Your task to perform on an android device: What's the weather today? Image 0: 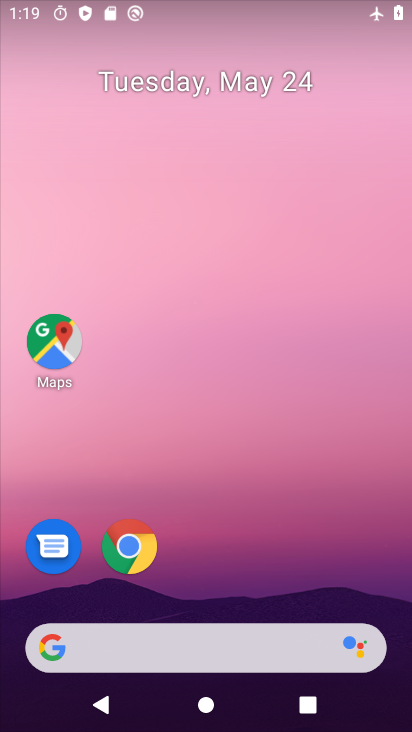
Step 0: drag from (184, 507) to (259, 13)
Your task to perform on an android device: What's the weather today? Image 1: 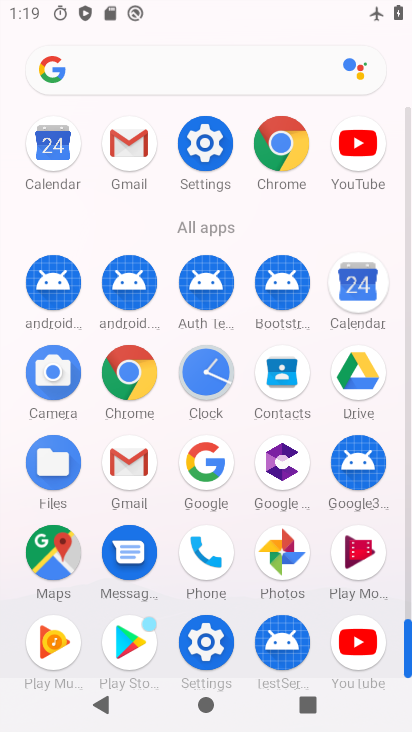
Step 1: click (155, 67)
Your task to perform on an android device: What's the weather today? Image 2: 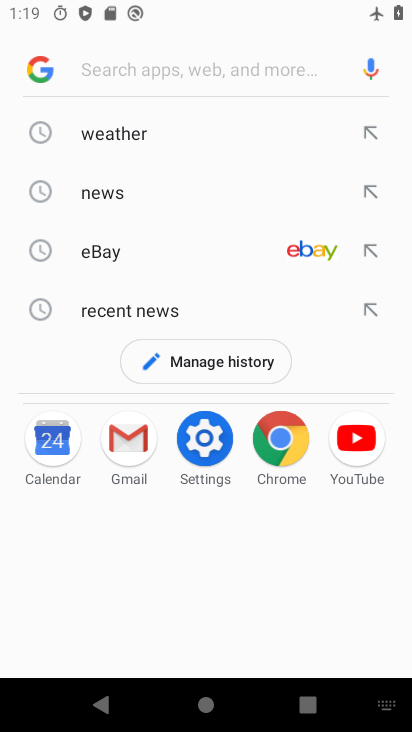
Step 2: type "weather today"
Your task to perform on an android device: What's the weather today? Image 3: 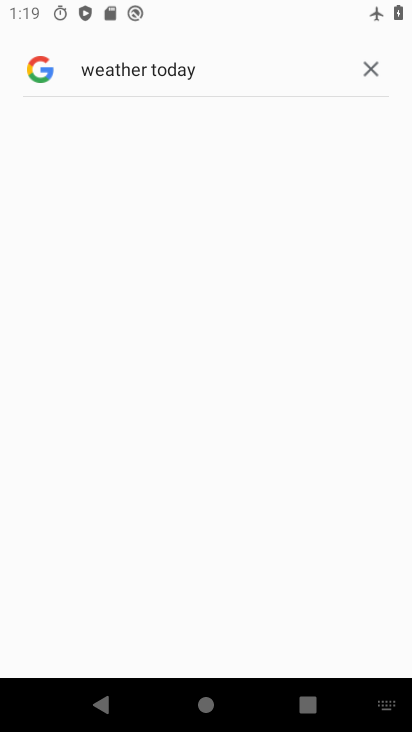
Step 3: click (260, 228)
Your task to perform on an android device: What's the weather today? Image 4: 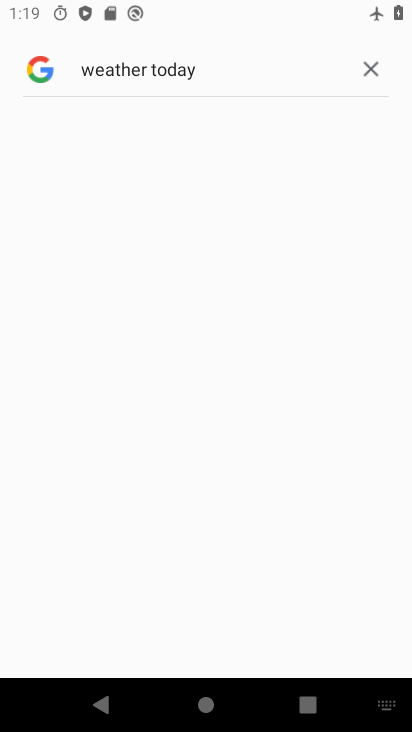
Step 4: task complete